Your task to perform on an android device: Open eBay Image 0: 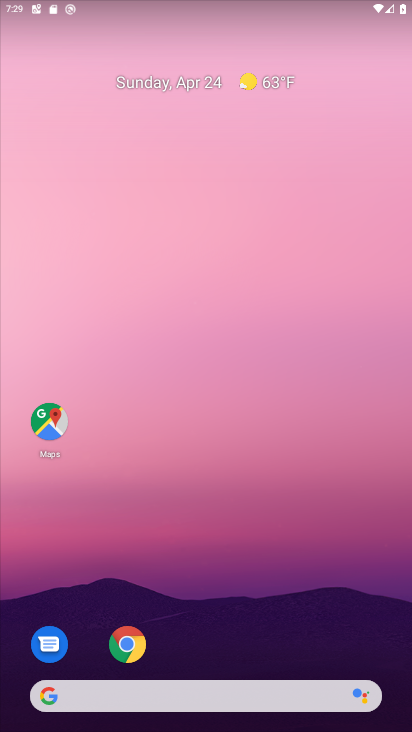
Step 0: press home button
Your task to perform on an android device: Open eBay Image 1: 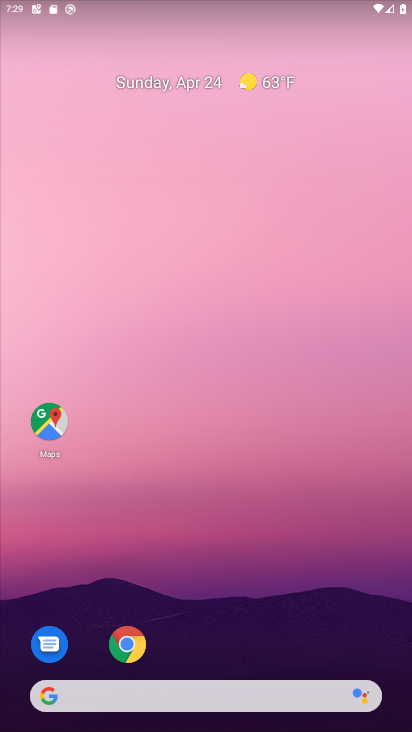
Step 1: drag from (211, 638) to (242, 7)
Your task to perform on an android device: Open eBay Image 2: 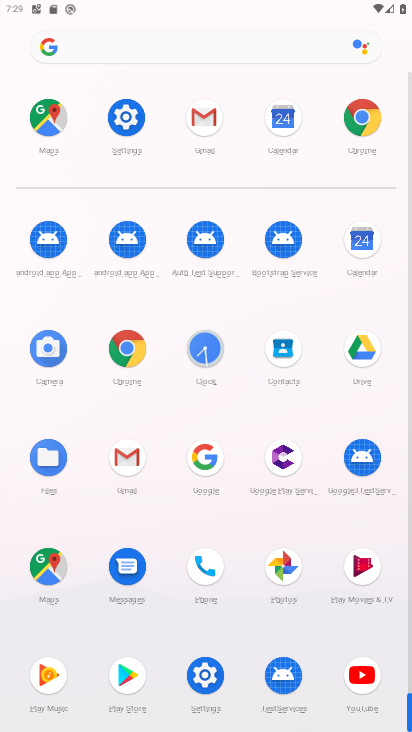
Step 2: click (125, 342)
Your task to perform on an android device: Open eBay Image 3: 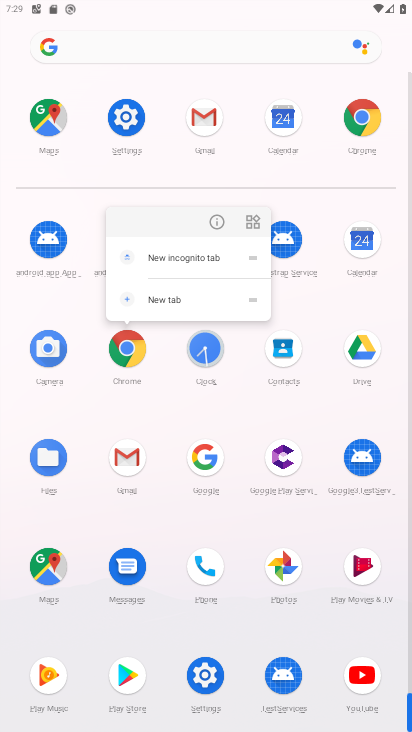
Step 3: click (125, 342)
Your task to perform on an android device: Open eBay Image 4: 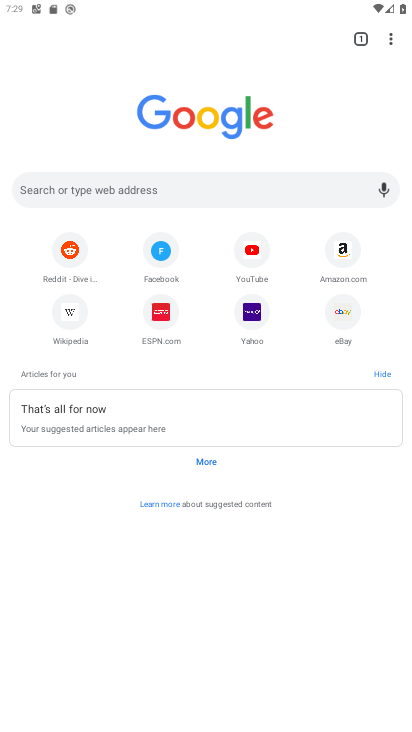
Step 4: click (344, 304)
Your task to perform on an android device: Open eBay Image 5: 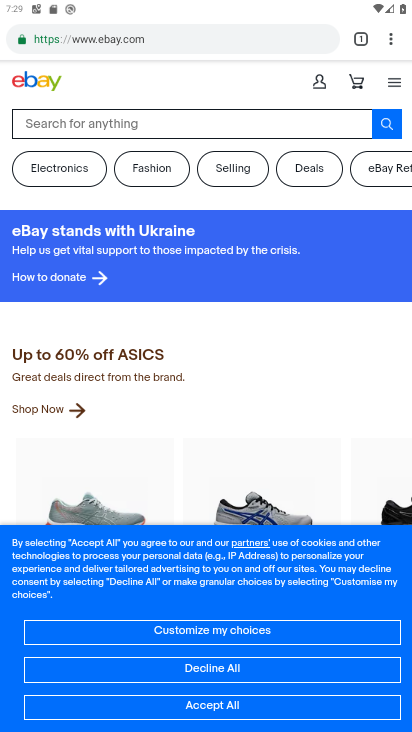
Step 5: task complete